Your task to perform on an android device: set an alarm Image 0: 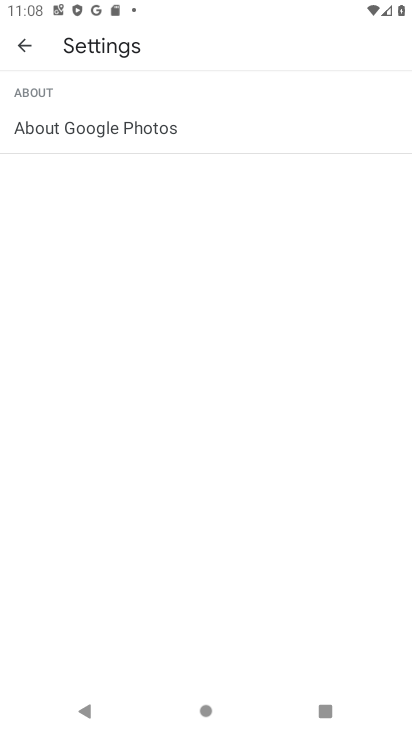
Step 0: press home button
Your task to perform on an android device: set an alarm Image 1: 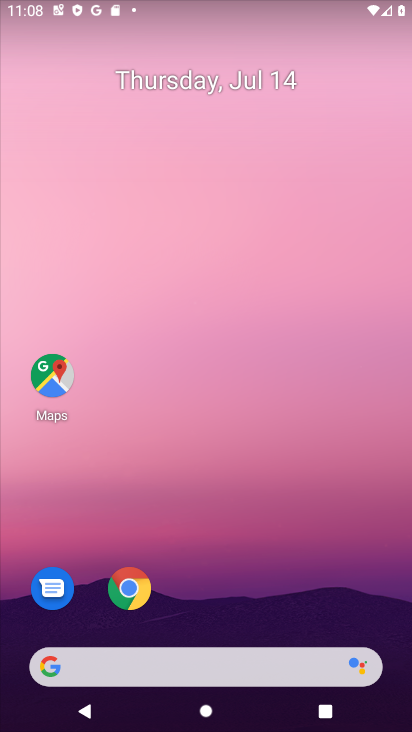
Step 1: drag from (312, 635) to (407, 257)
Your task to perform on an android device: set an alarm Image 2: 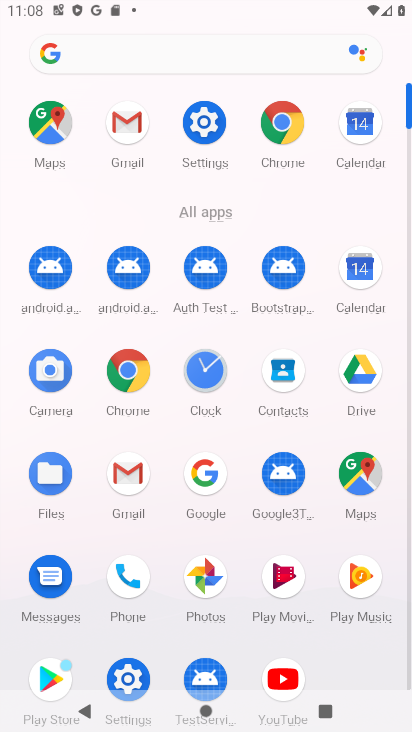
Step 2: click (231, 381)
Your task to perform on an android device: set an alarm Image 3: 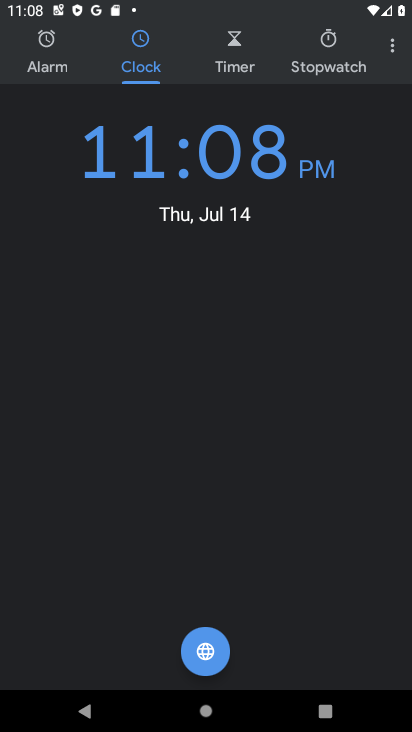
Step 3: click (36, 53)
Your task to perform on an android device: set an alarm Image 4: 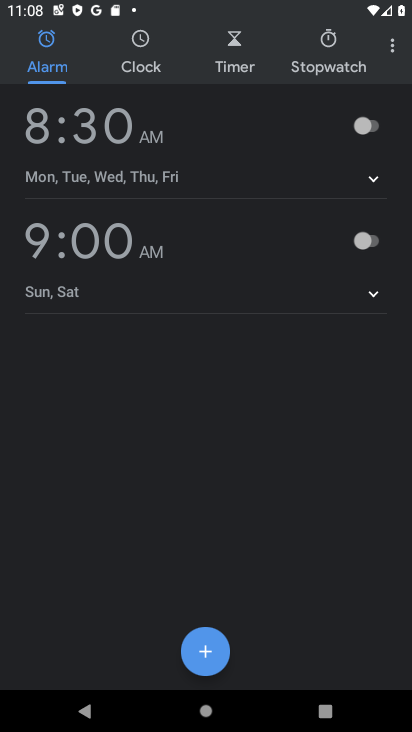
Step 4: click (215, 649)
Your task to perform on an android device: set an alarm Image 5: 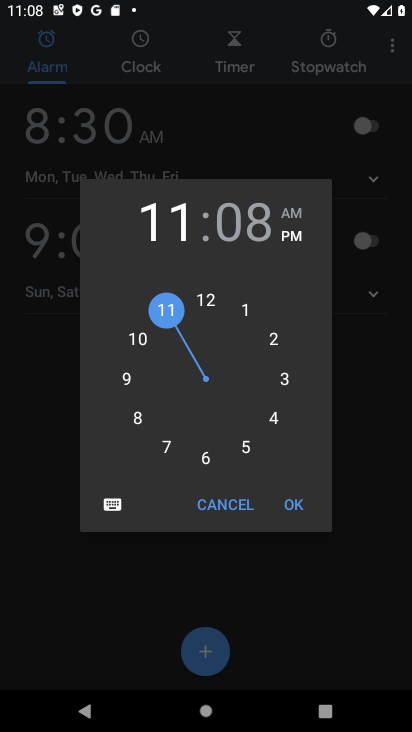
Step 5: click (254, 417)
Your task to perform on an android device: set an alarm Image 6: 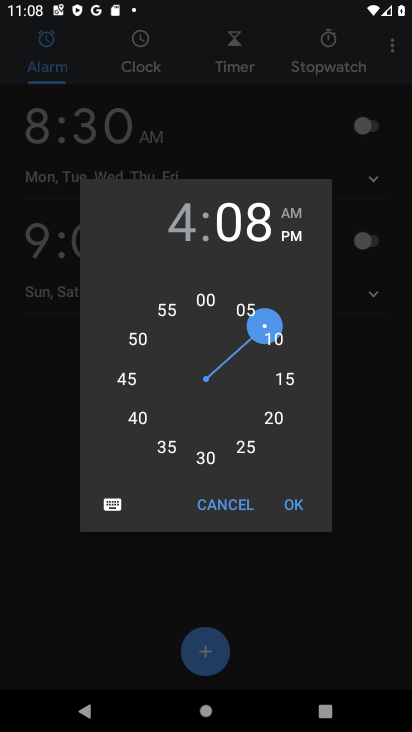
Step 6: click (297, 509)
Your task to perform on an android device: set an alarm Image 7: 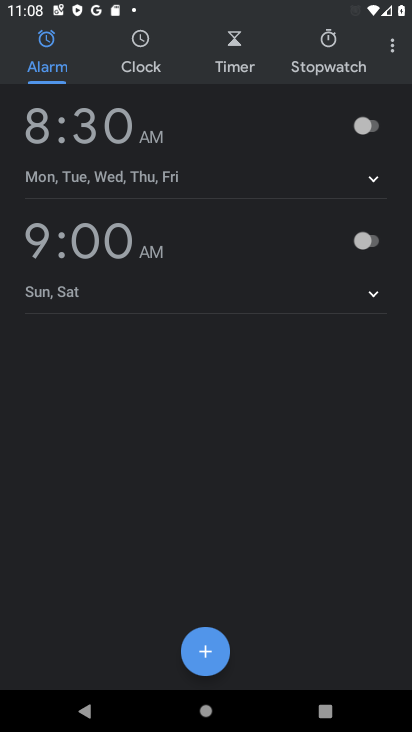
Step 7: click (241, 455)
Your task to perform on an android device: set an alarm Image 8: 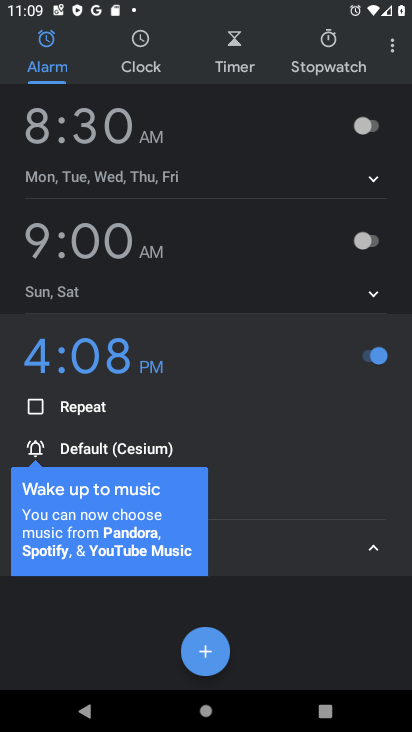
Step 8: task complete